Your task to perform on an android device: turn on the 24-hour format for clock Image 0: 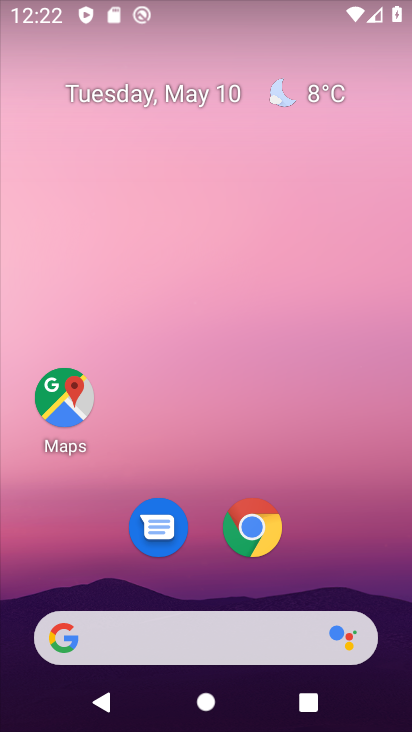
Step 0: drag from (306, 536) to (200, 64)
Your task to perform on an android device: turn on the 24-hour format for clock Image 1: 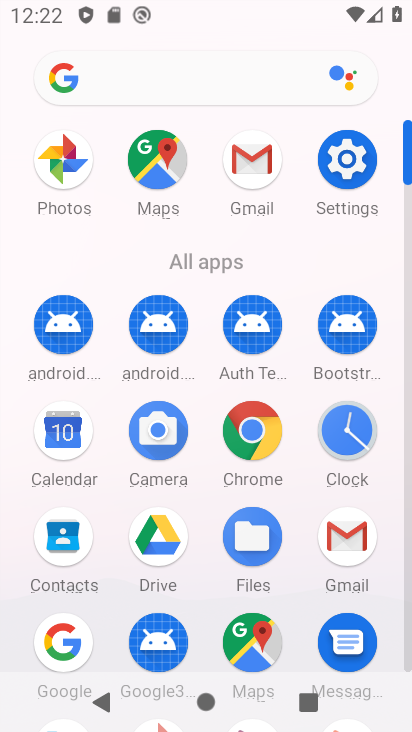
Step 1: click (347, 435)
Your task to perform on an android device: turn on the 24-hour format for clock Image 2: 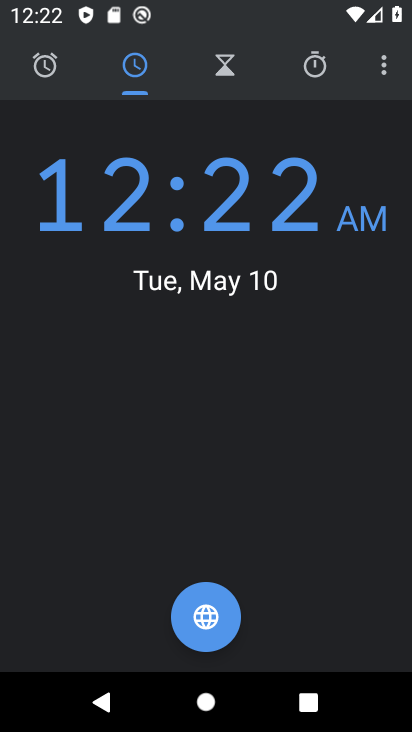
Step 2: click (387, 66)
Your task to perform on an android device: turn on the 24-hour format for clock Image 3: 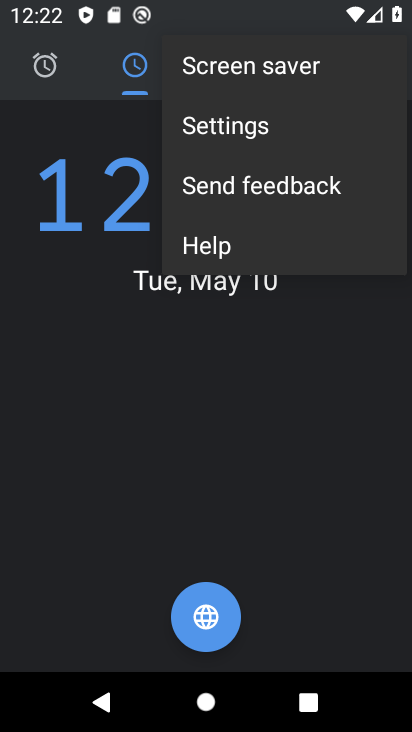
Step 3: click (249, 111)
Your task to perform on an android device: turn on the 24-hour format for clock Image 4: 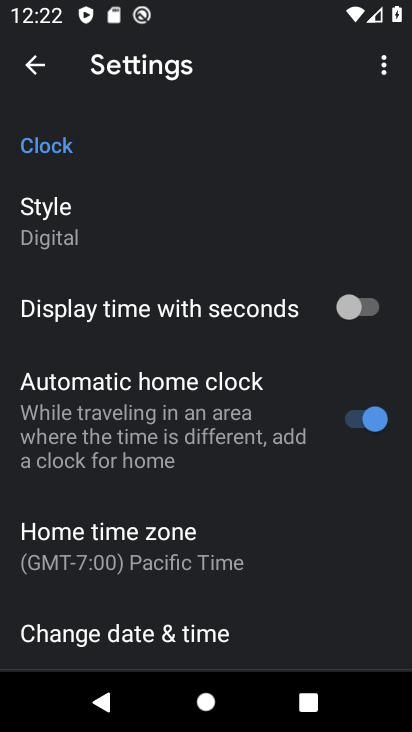
Step 4: click (152, 632)
Your task to perform on an android device: turn on the 24-hour format for clock Image 5: 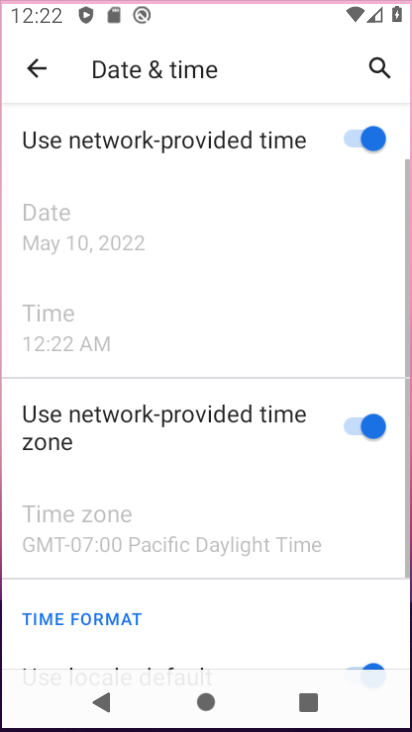
Step 5: drag from (152, 632) to (153, 333)
Your task to perform on an android device: turn on the 24-hour format for clock Image 6: 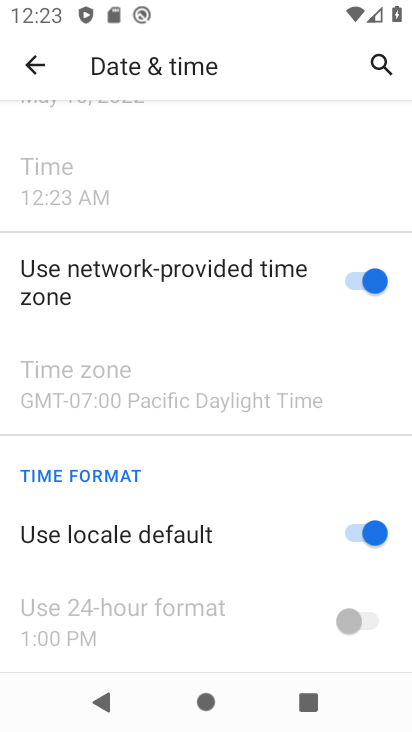
Step 6: click (354, 630)
Your task to perform on an android device: turn on the 24-hour format for clock Image 7: 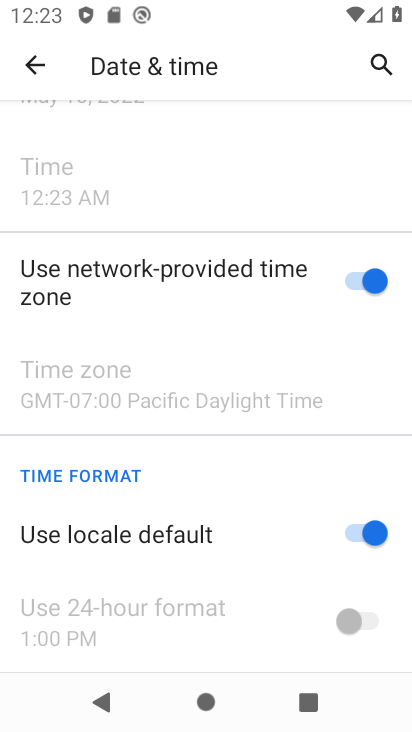
Step 7: click (366, 531)
Your task to perform on an android device: turn on the 24-hour format for clock Image 8: 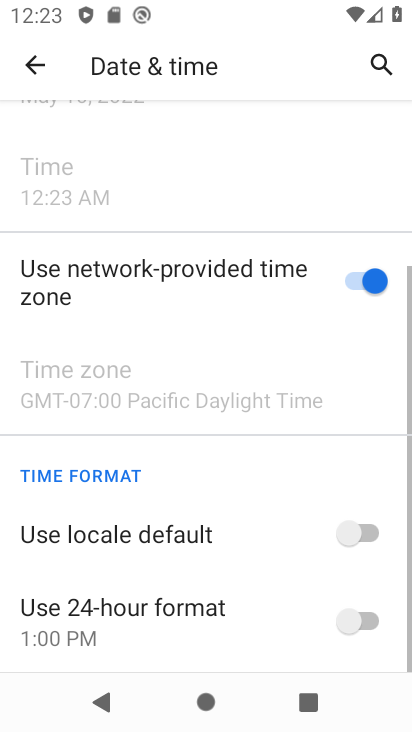
Step 8: click (350, 617)
Your task to perform on an android device: turn on the 24-hour format for clock Image 9: 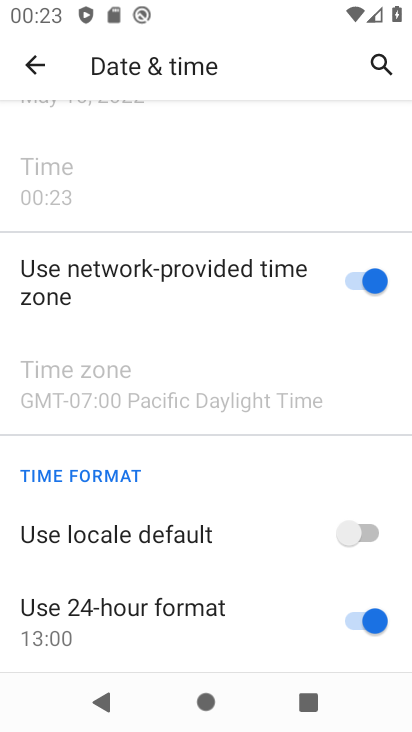
Step 9: task complete